Your task to perform on an android device: Find coffee shops on Maps Image 0: 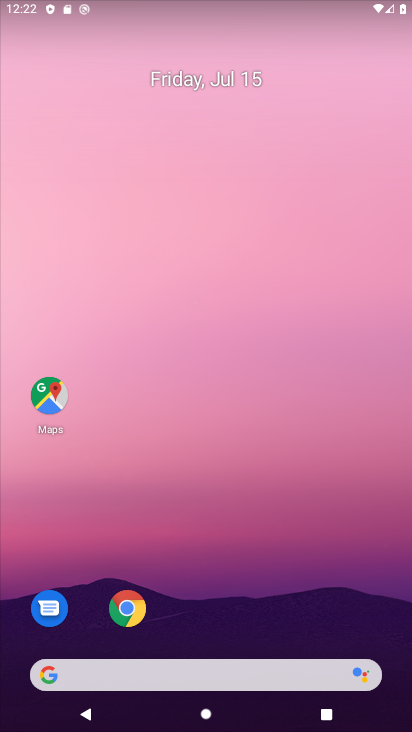
Step 0: click (48, 402)
Your task to perform on an android device: Find coffee shops on Maps Image 1: 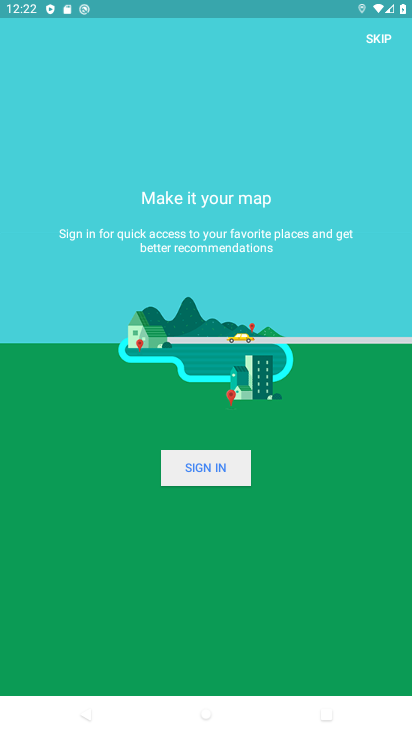
Step 1: click (376, 38)
Your task to perform on an android device: Find coffee shops on Maps Image 2: 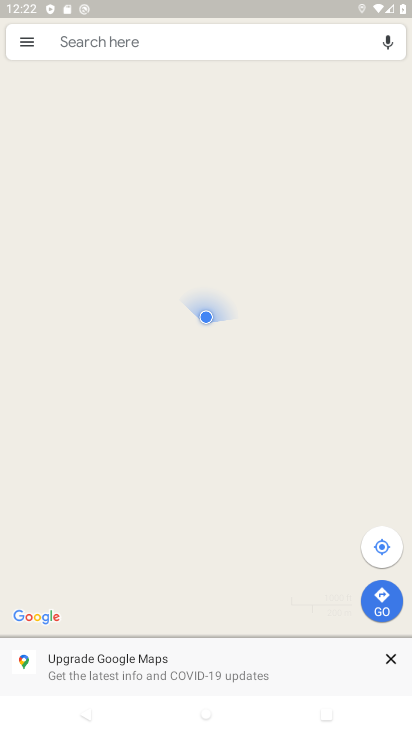
Step 2: click (283, 41)
Your task to perform on an android device: Find coffee shops on Maps Image 3: 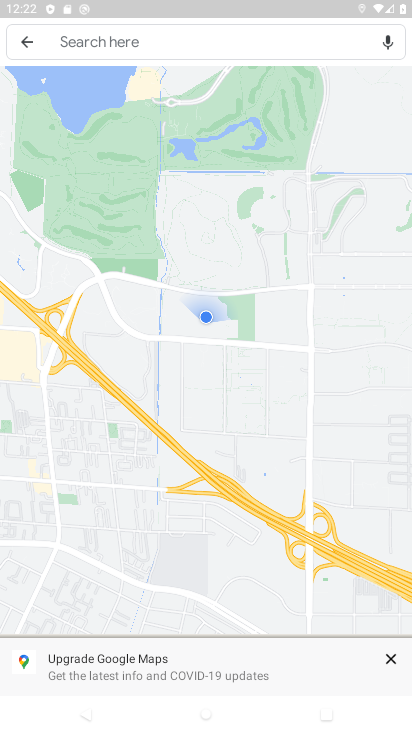
Step 3: click (201, 44)
Your task to perform on an android device: Find coffee shops on Maps Image 4: 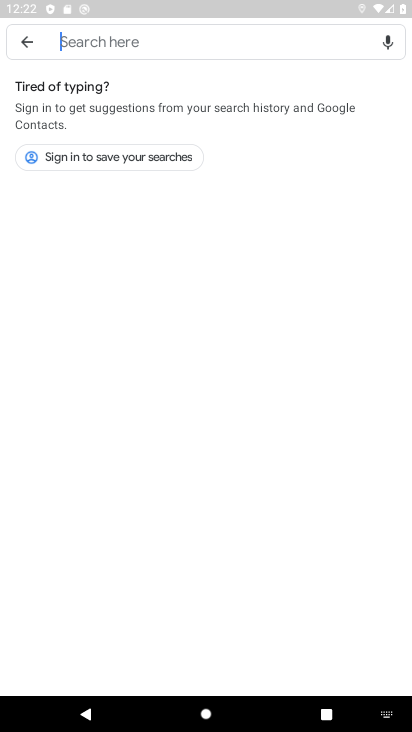
Step 4: type "coffee shops"
Your task to perform on an android device: Find coffee shops on Maps Image 5: 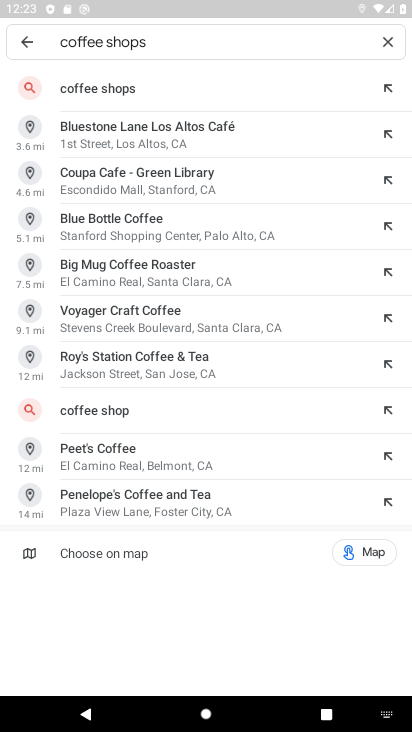
Step 5: click (129, 89)
Your task to perform on an android device: Find coffee shops on Maps Image 6: 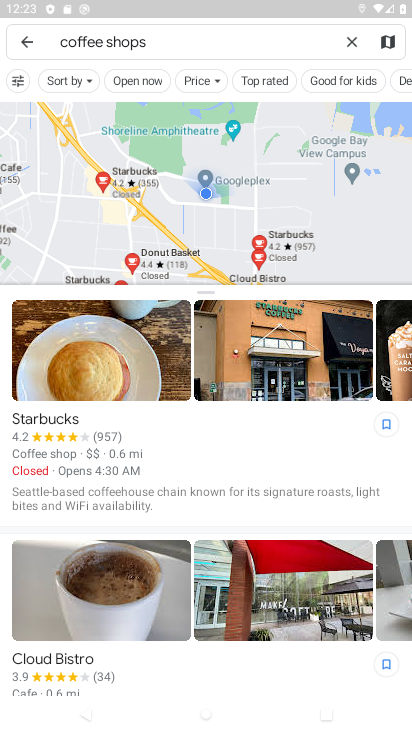
Step 6: task complete